Your task to perform on an android device: View the shopping cart on amazon.com. Search for "dell alienware" on amazon.com, select the first entry, add it to the cart, then select checkout. Image 0: 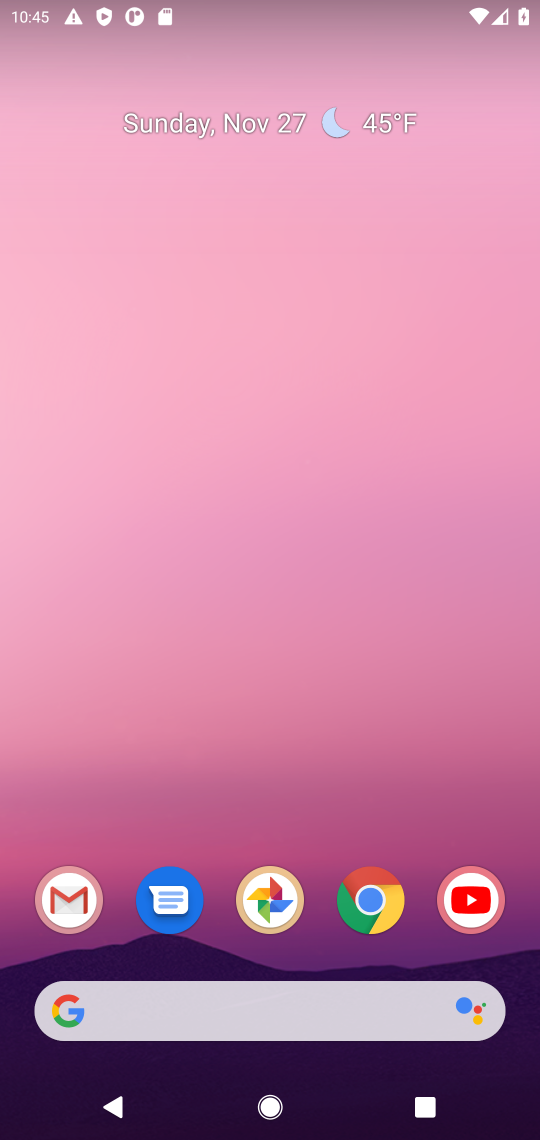
Step 0: click (368, 912)
Your task to perform on an android device: View the shopping cart on amazon.com. Search for "dell alienware" on amazon.com, select the first entry, add it to the cart, then select checkout. Image 1: 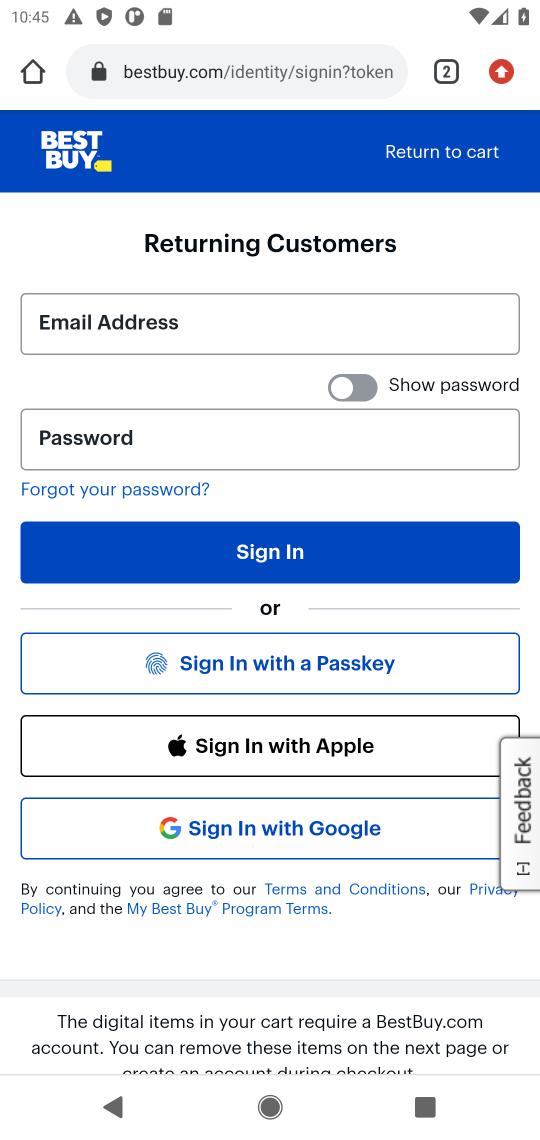
Step 1: click (220, 76)
Your task to perform on an android device: View the shopping cart on amazon.com. Search for "dell alienware" on amazon.com, select the first entry, add it to the cart, then select checkout. Image 2: 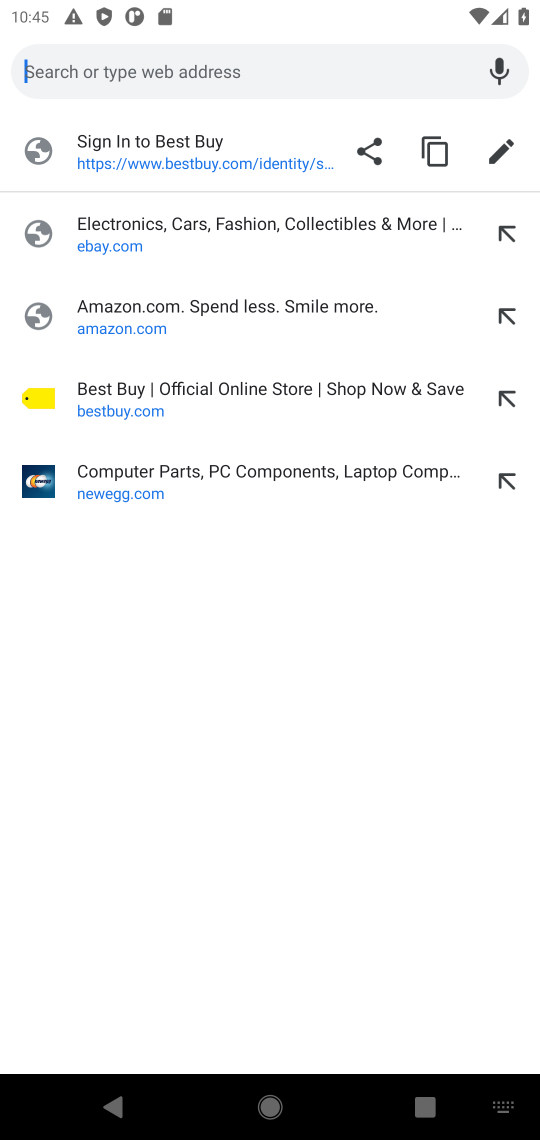
Step 2: click (84, 335)
Your task to perform on an android device: View the shopping cart on amazon.com. Search for "dell alienware" on amazon.com, select the first entry, add it to the cart, then select checkout. Image 3: 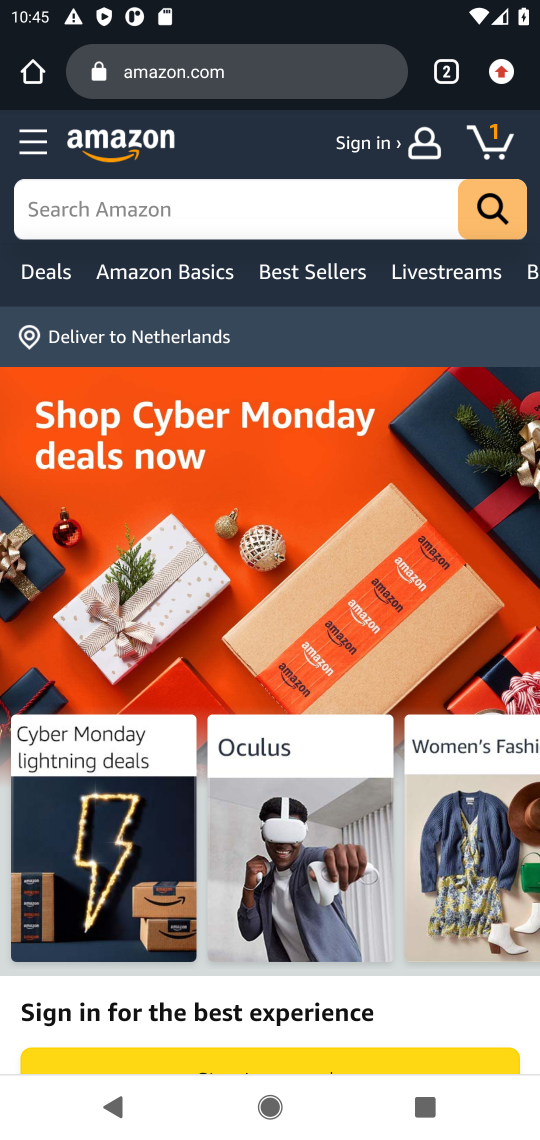
Step 3: click (495, 152)
Your task to perform on an android device: View the shopping cart on amazon.com. Search for "dell alienware" on amazon.com, select the first entry, add it to the cart, then select checkout. Image 4: 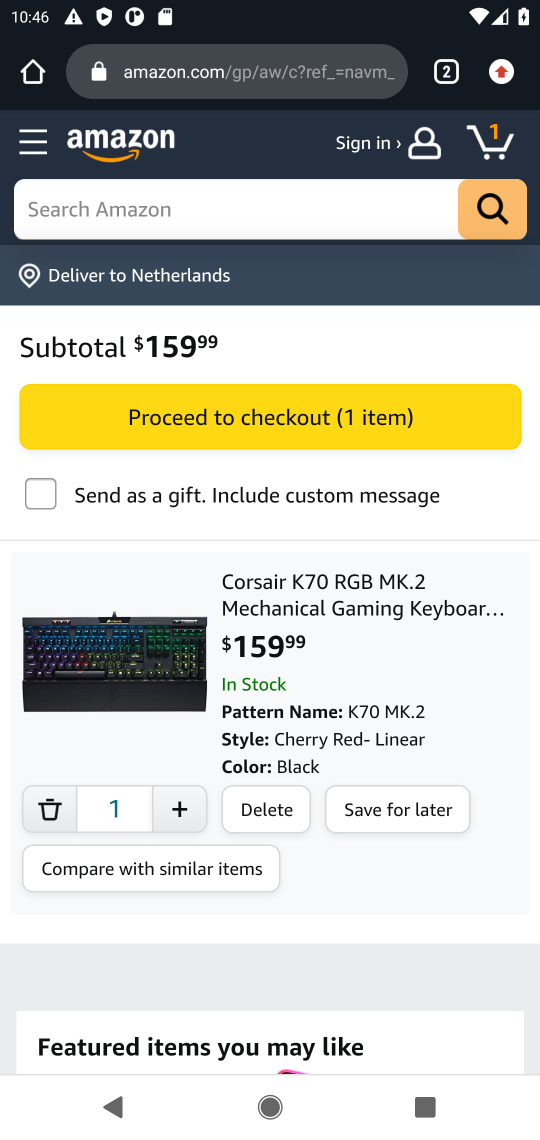
Step 4: click (179, 224)
Your task to perform on an android device: View the shopping cart on amazon.com. Search for "dell alienware" on amazon.com, select the first entry, add it to the cart, then select checkout. Image 5: 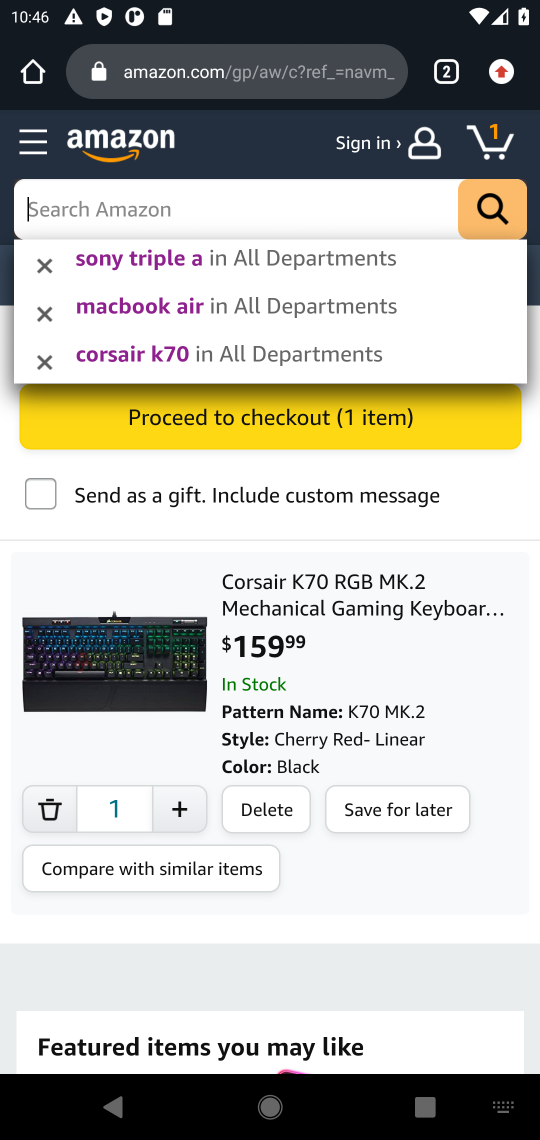
Step 5: type "dell alienware"
Your task to perform on an android device: View the shopping cart on amazon.com. Search for "dell alienware" on amazon.com, select the first entry, add it to the cart, then select checkout. Image 6: 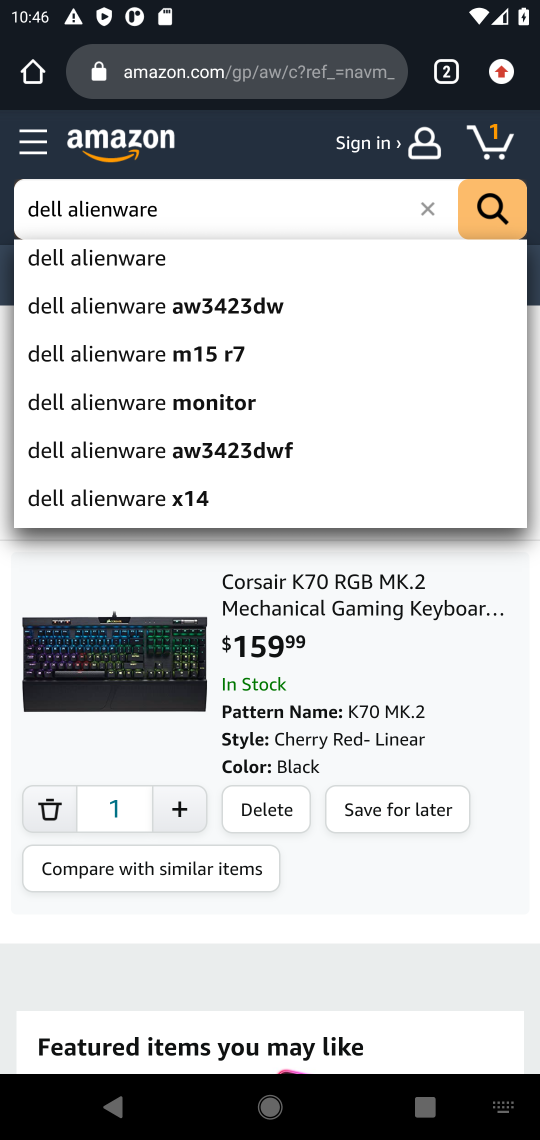
Step 6: click (102, 263)
Your task to perform on an android device: View the shopping cart on amazon.com. Search for "dell alienware" on amazon.com, select the first entry, add it to the cart, then select checkout. Image 7: 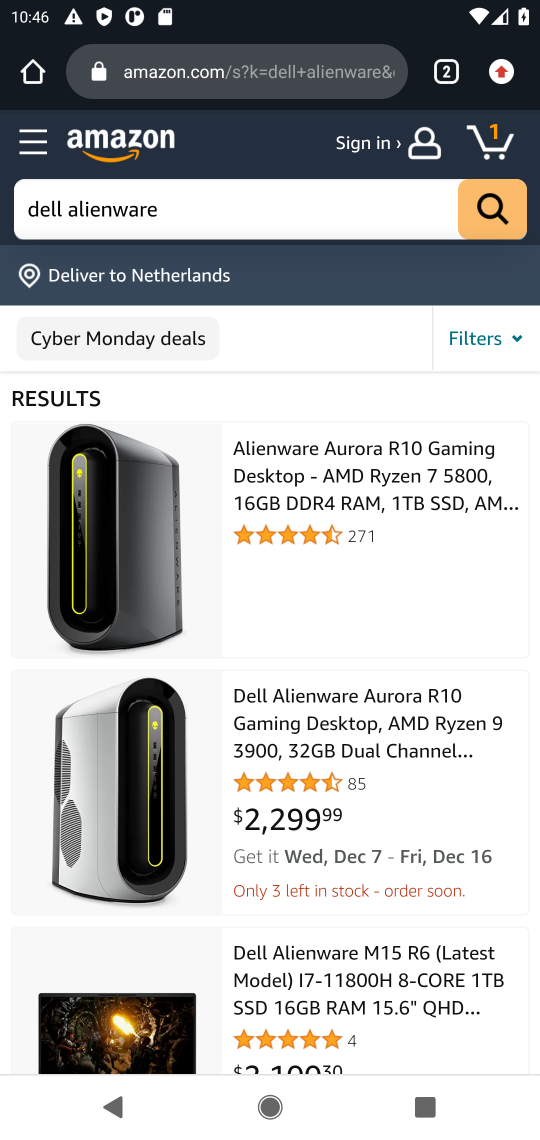
Step 7: click (314, 471)
Your task to perform on an android device: View the shopping cart on amazon.com. Search for "dell alienware" on amazon.com, select the first entry, add it to the cart, then select checkout. Image 8: 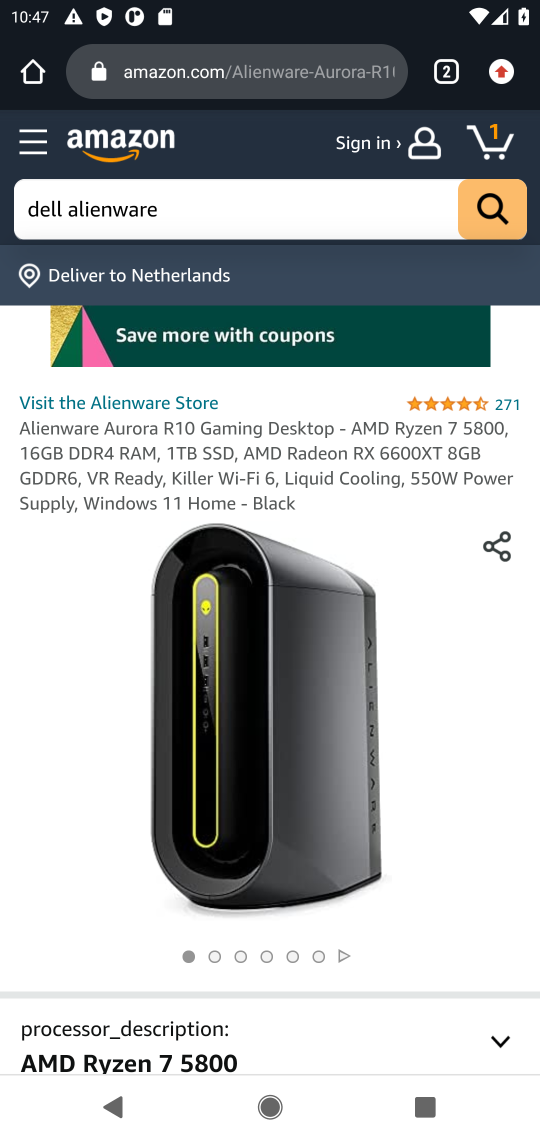
Step 8: task complete